Your task to perform on an android device: install app "Microsoft Authenticator" Image 0: 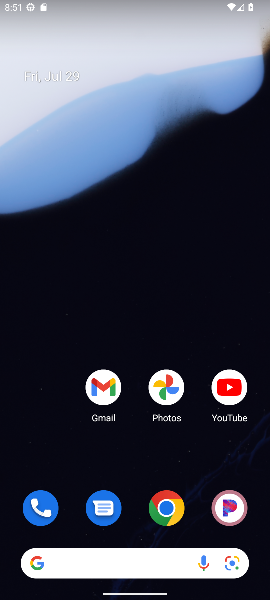
Step 0: drag from (129, 483) to (143, 0)
Your task to perform on an android device: install app "Microsoft Authenticator" Image 1: 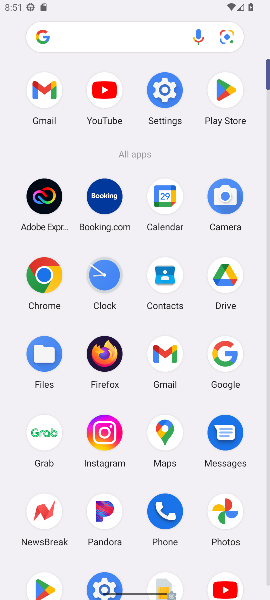
Step 1: click (221, 81)
Your task to perform on an android device: install app "Microsoft Authenticator" Image 2: 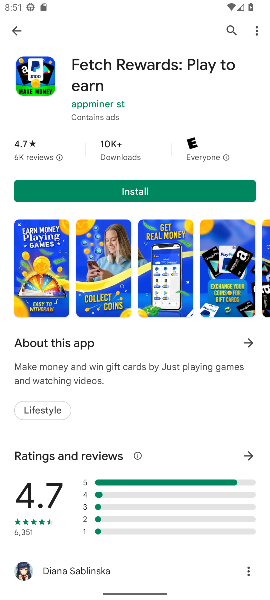
Step 2: click (227, 28)
Your task to perform on an android device: install app "Microsoft Authenticator" Image 3: 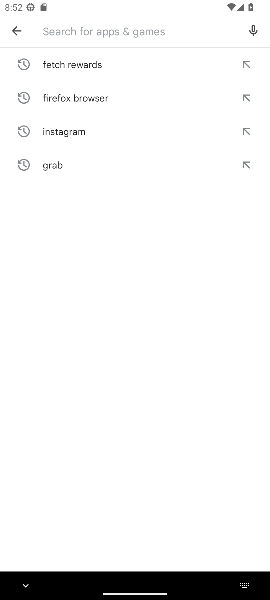
Step 3: type "Microsoft Authenticator"
Your task to perform on an android device: install app "Microsoft Authenticator" Image 4: 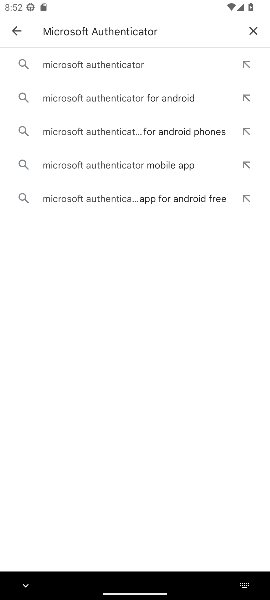
Step 4: click (145, 61)
Your task to perform on an android device: install app "Microsoft Authenticator" Image 5: 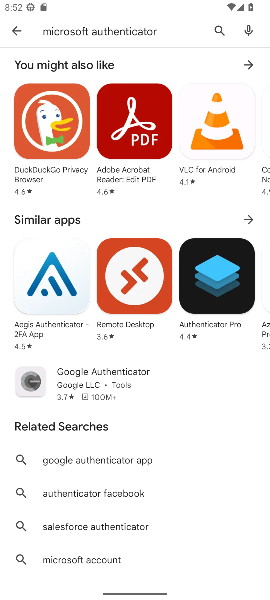
Step 5: task complete